Your task to perform on an android device: Open Reddit.com Image 0: 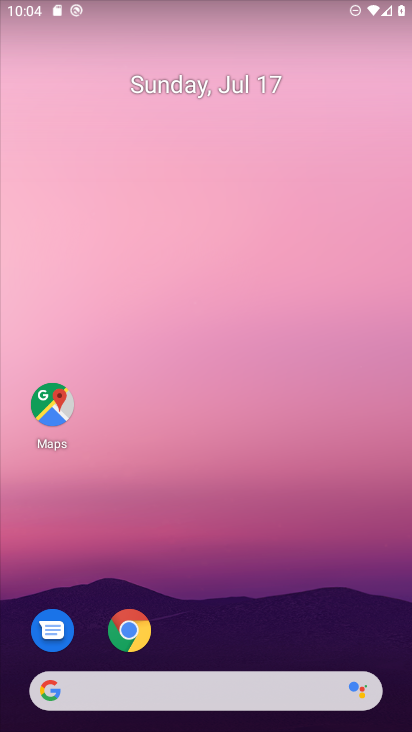
Step 0: click (91, 609)
Your task to perform on an android device: Open Reddit.com Image 1: 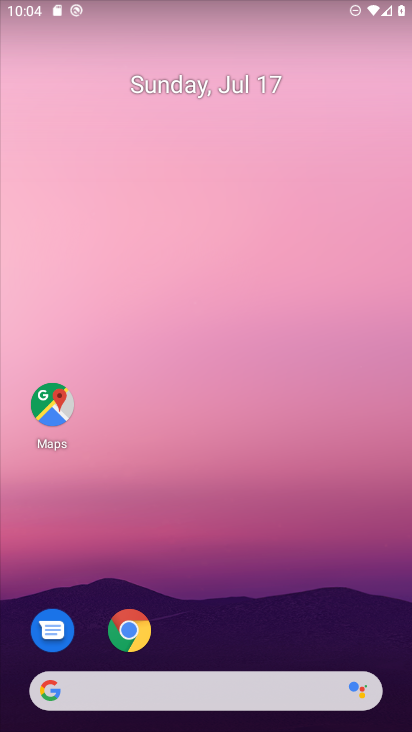
Step 1: click (178, 643)
Your task to perform on an android device: Open Reddit.com Image 2: 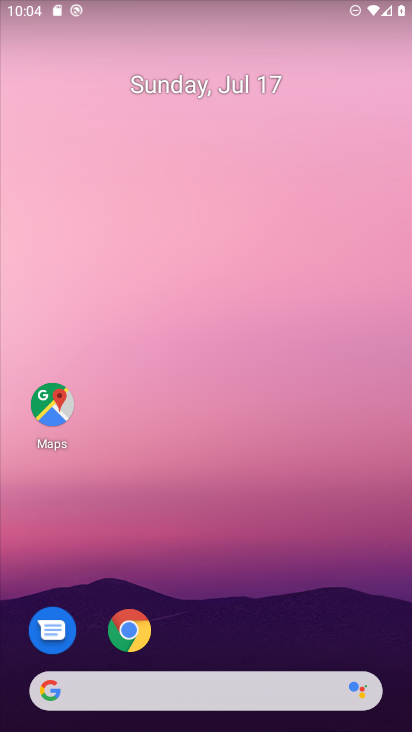
Step 2: click (137, 622)
Your task to perform on an android device: Open Reddit.com Image 3: 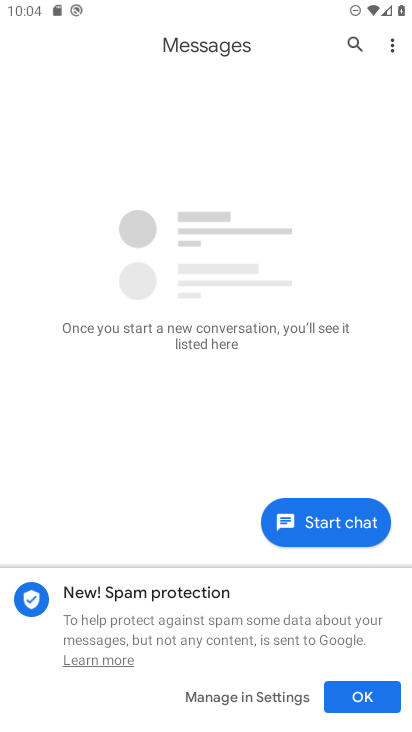
Step 3: press home button
Your task to perform on an android device: Open Reddit.com Image 4: 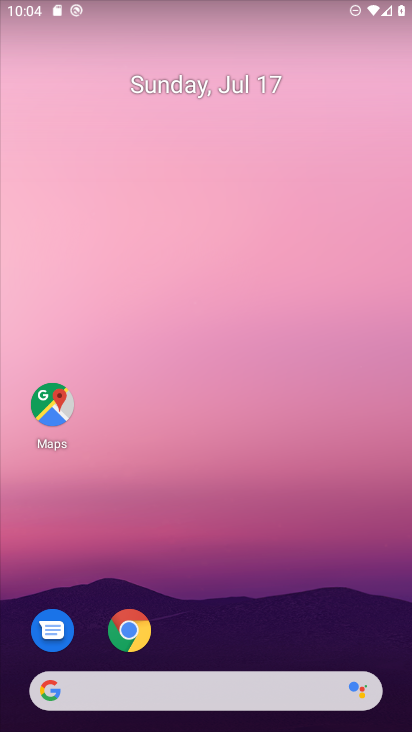
Step 4: click (117, 630)
Your task to perform on an android device: Open Reddit.com Image 5: 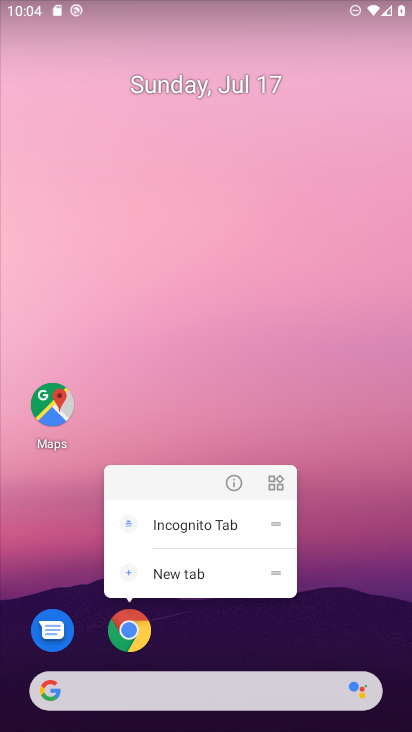
Step 5: click (133, 638)
Your task to perform on an android device: Open Reddit.com Image 6: 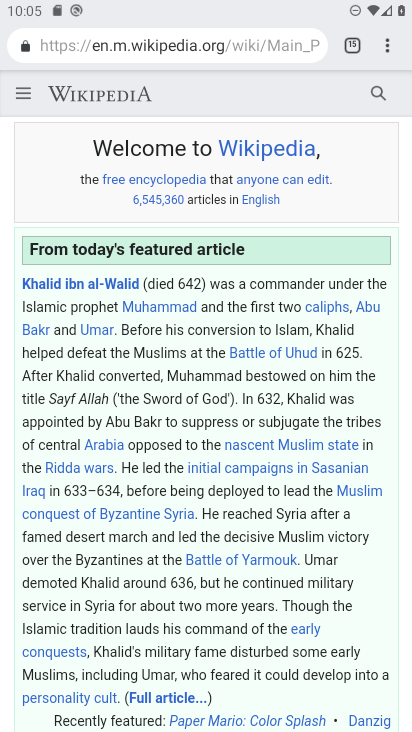
Step 6: click (389, 41)
Your task to perform on an android device: Open Reddit.com Image 7: 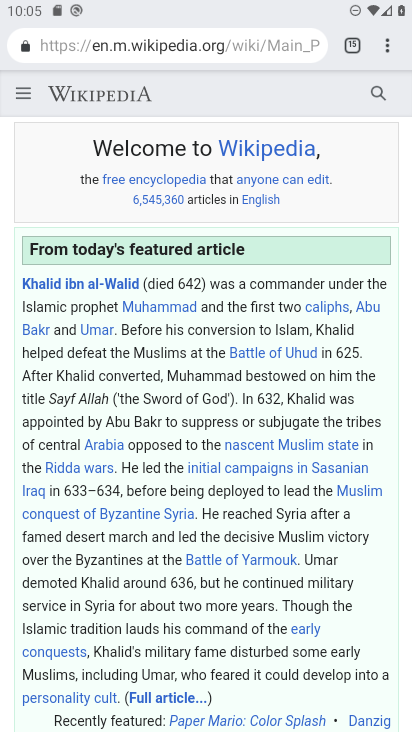
Step 7: click (392, 43)
Your task to perform on an android device: Open Reddit.com Image 8: 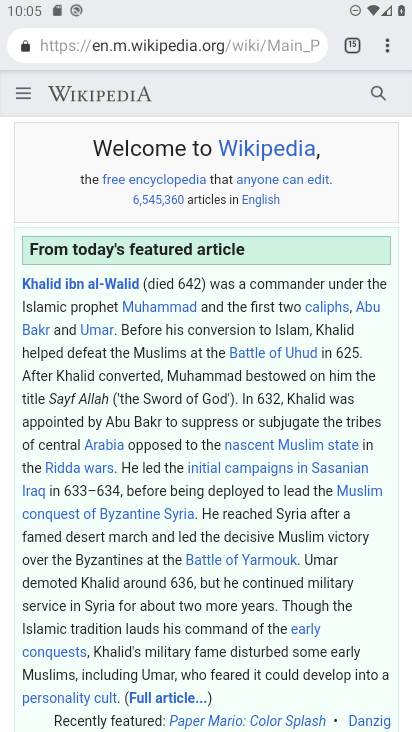
Step 8: click (392, 43)
Your task to perform on an android device: Open Reddit.com Image 9: 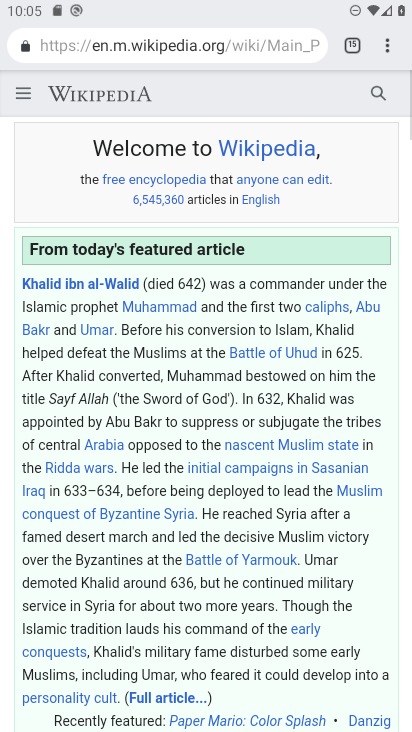
Step 9: click (392, 43)
Your task to perform on an android device: Open Reddit.com Image 10: 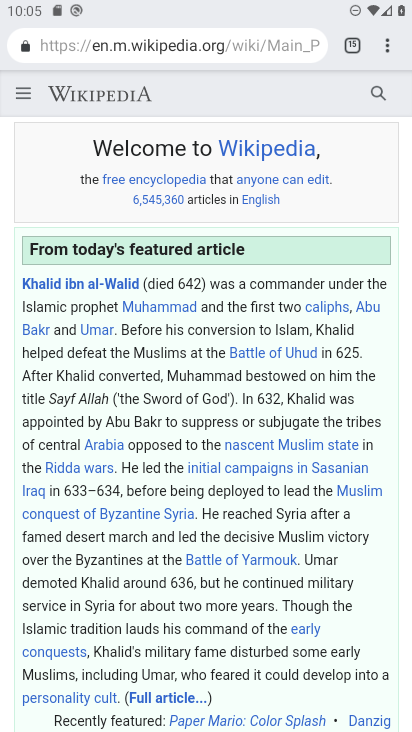
Step 10: click (386, 44)
Your task to perform on an android device: Open Reddit.com Image 11: 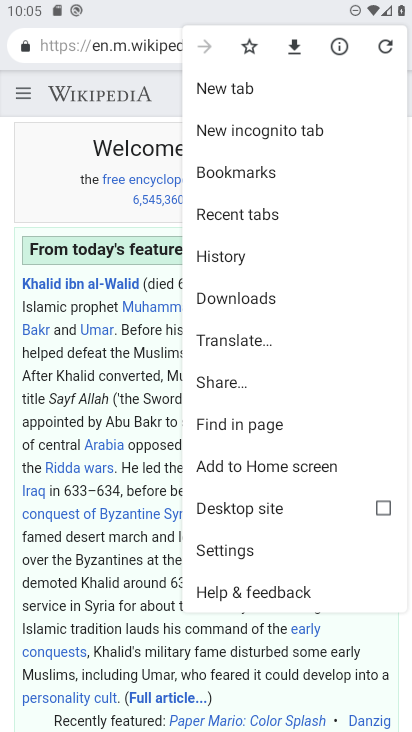
Step 11: click (256, 88)
Your task to perform on an android device: Open Reddit.com Image 12: 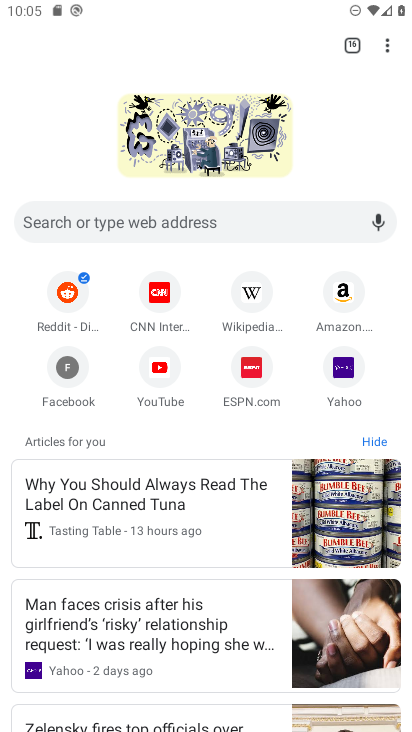
Step 12: click (83, 277)
Your task to perform on an android device: Open Reddit.com Image 13: 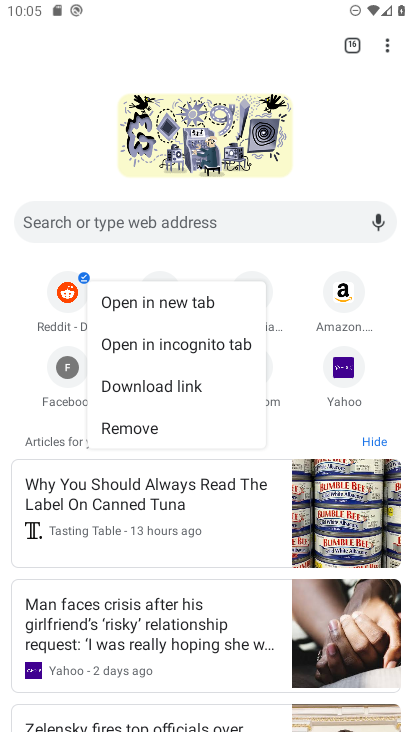
Step 13: click (121, 299)
Your task to perform on an android device: Open Reddit.com Image 14: 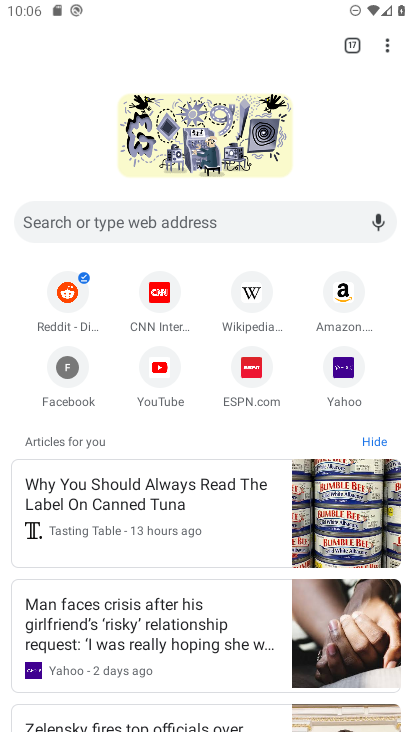
Step 14: click (49, 290)
Your task to perform on an android device: Open Reddit.com Image 15: 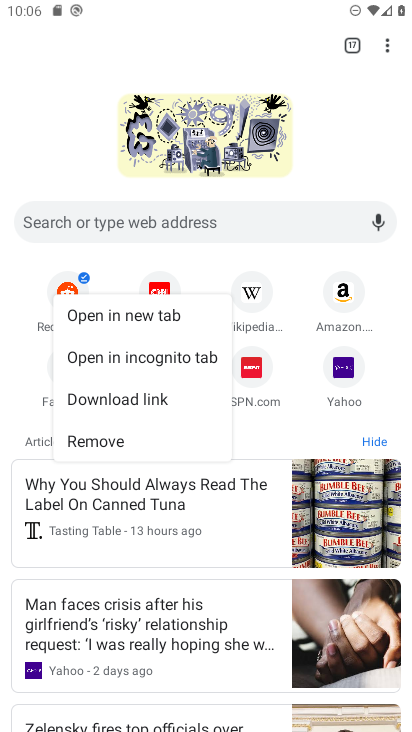
Step 15: click (118, 317)
Your task to perform on an android device: Open Reddit.com Image 16: 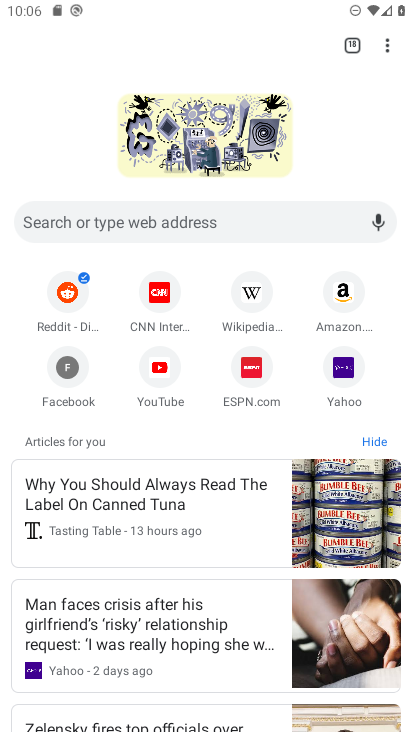
Step 16: click (76, 295)
Your task to perform on an android device: Open Reddit.com Image 17: 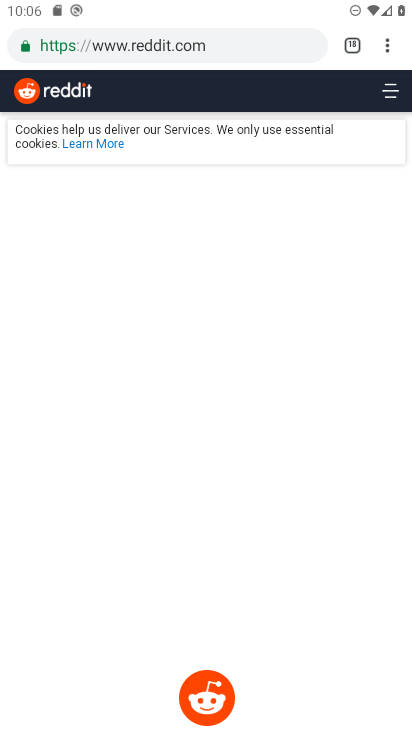
Step 17: task complete